Your task to perform on an android device: allow cookies in the chrome app Image 0: 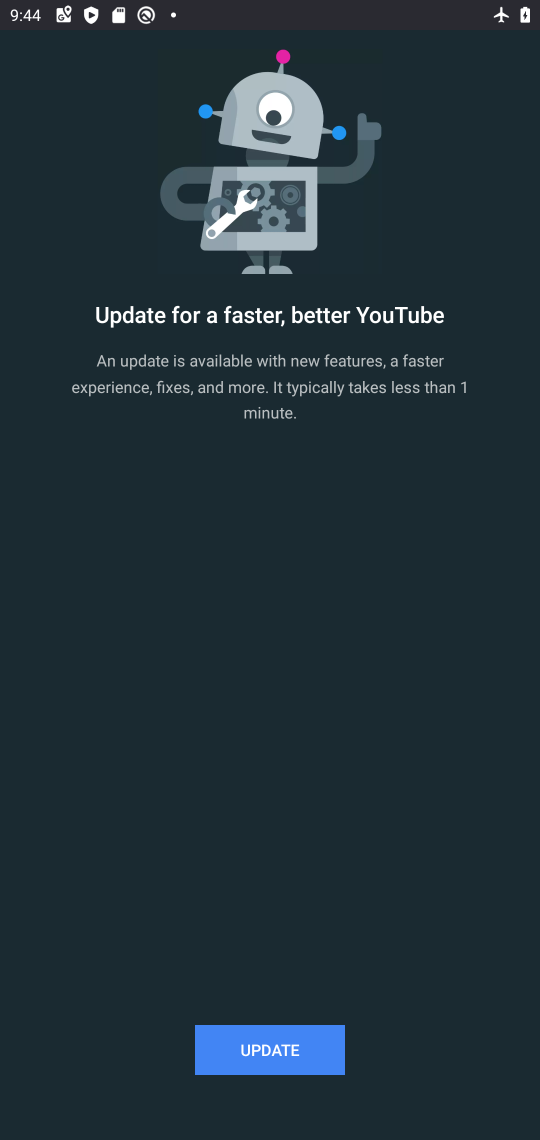
Step 0: press back button
Your task to perform on an android device: allow cookies in the chrome app Image 1: 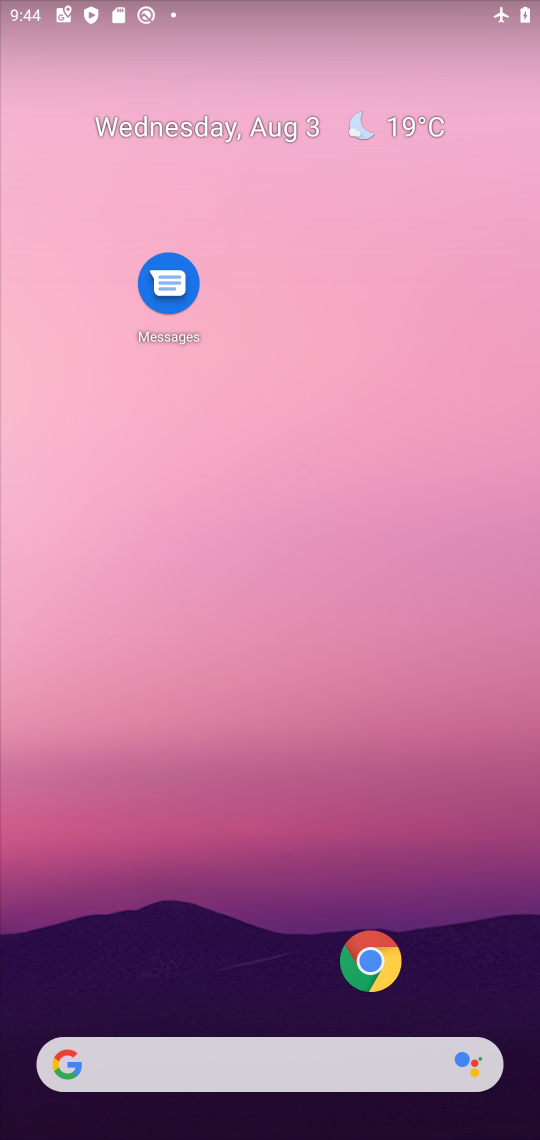
Step 1: click (361, 976)
Your task to perform on an android device: allow cookies in the chrome app Image 2: 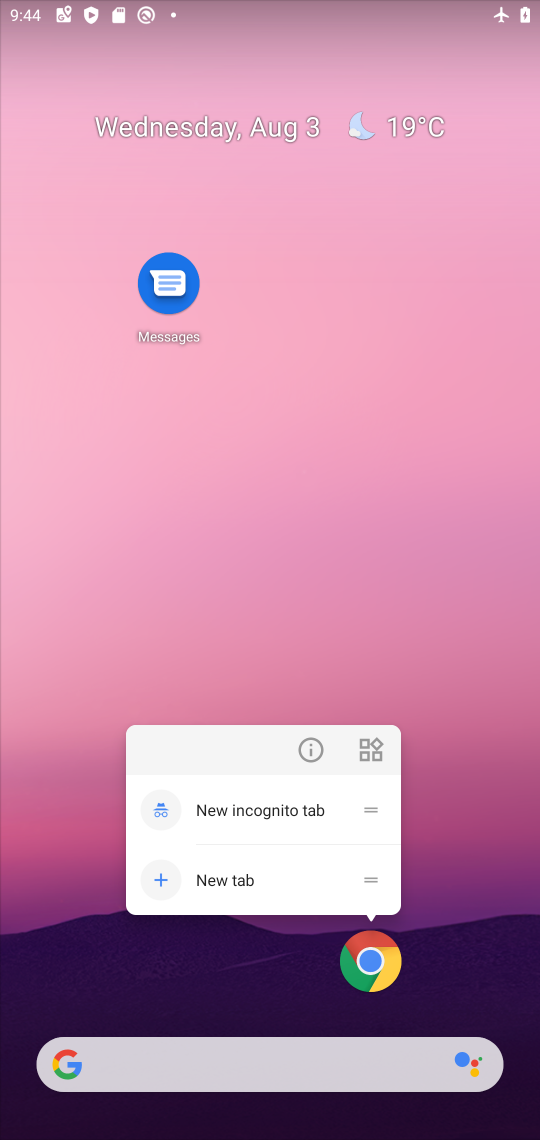
Step 2: click (356, 965)
Your task to perform on an android device: allow cookies in the chrome app Image 3: 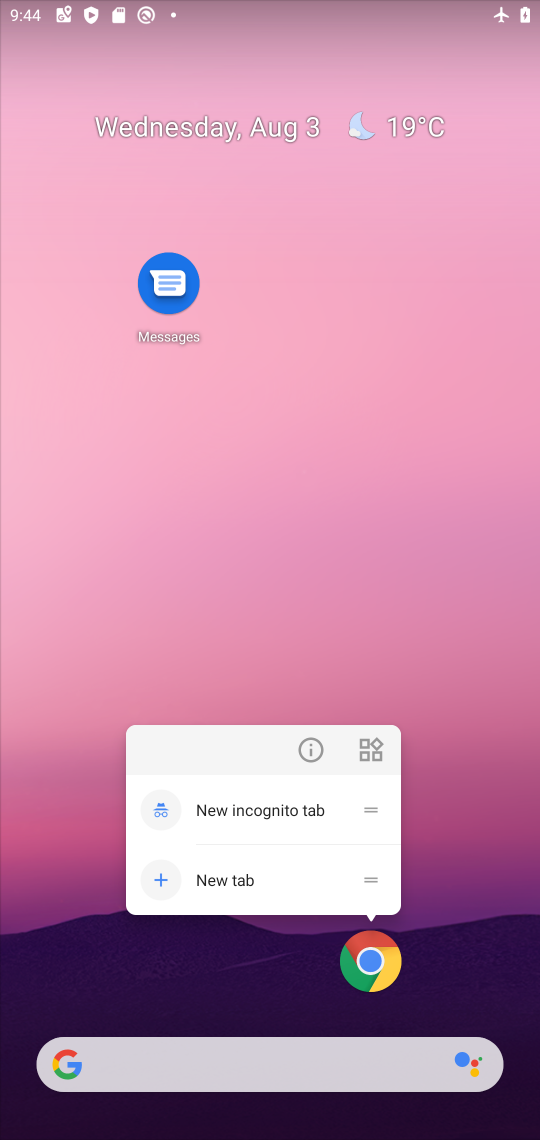
Step 3: click (363, 956)
Your task to perform on an android device: allow cookies in the chrome app Image 4: 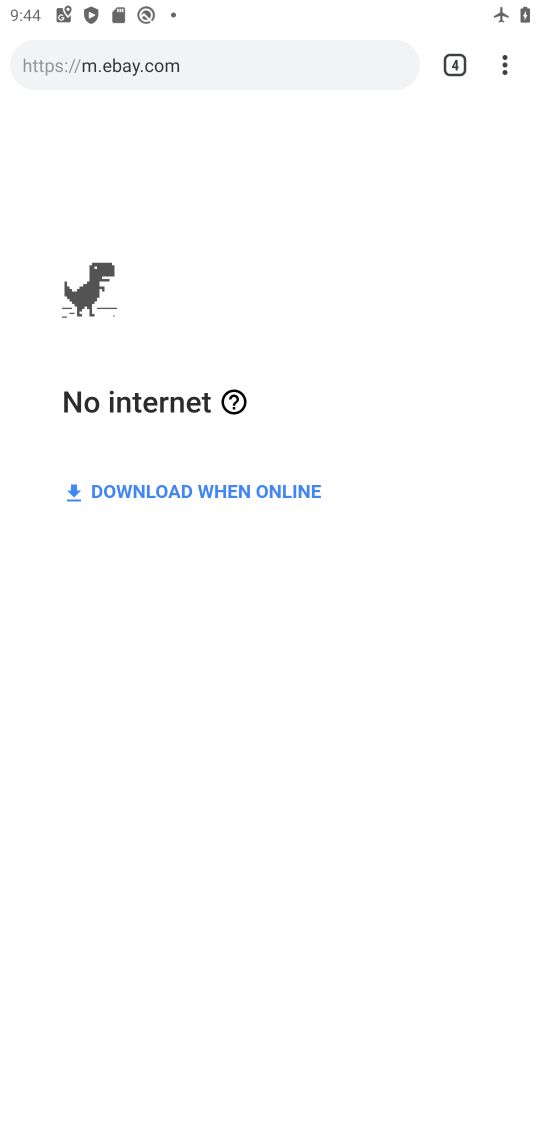
Step 4: drag from (503, 66) to (271, 716)
Your task to perform on an android device: allow cookies in the chrome app Image 5: 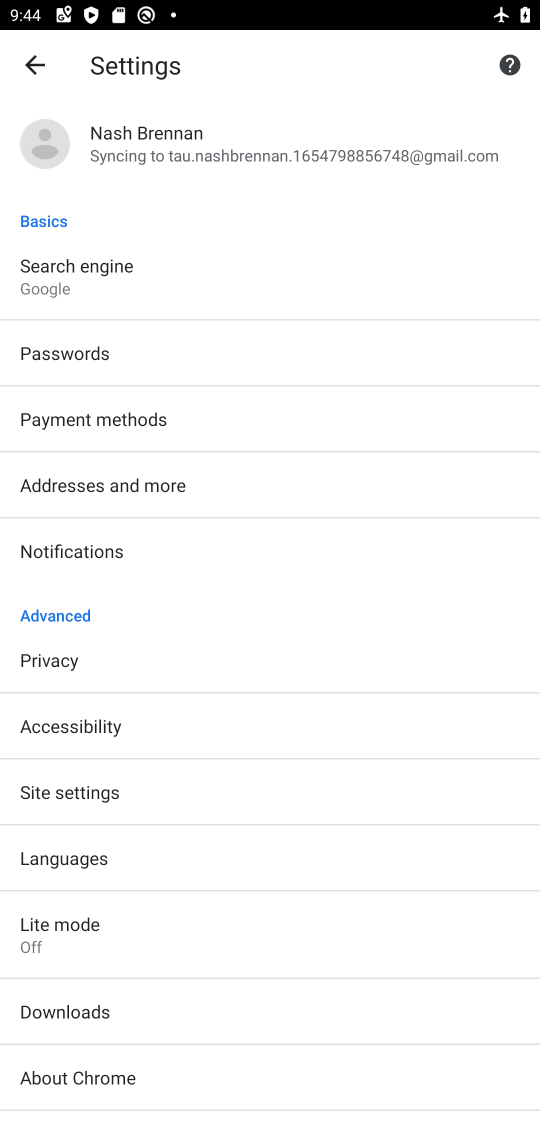
Step 5: click (79, 800)
Your task to perform on an android device: allow cookies in the chrome app Image 6: 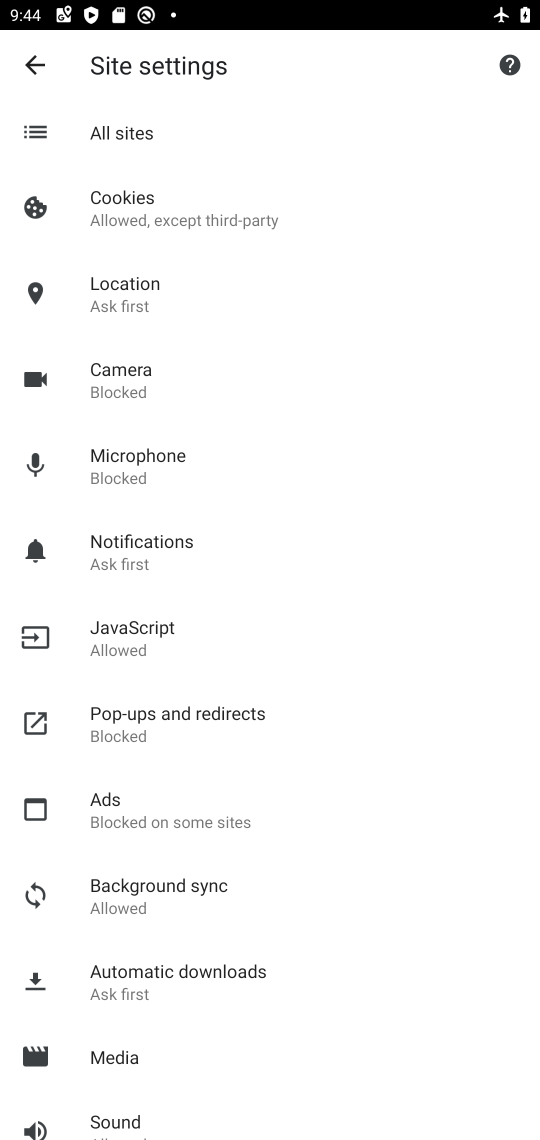
Step 6: click (97, 215)
Your task to perform on an android device: allow cookies in the chrome app Image 7: 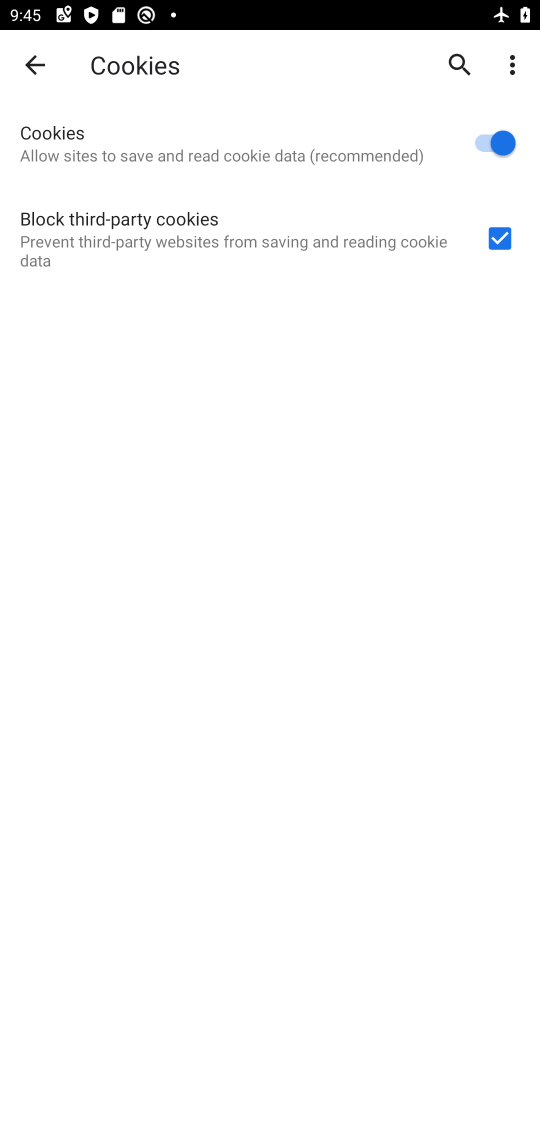
Step 7: task complete